Your task to perform on an android device: check google app version Image 0: 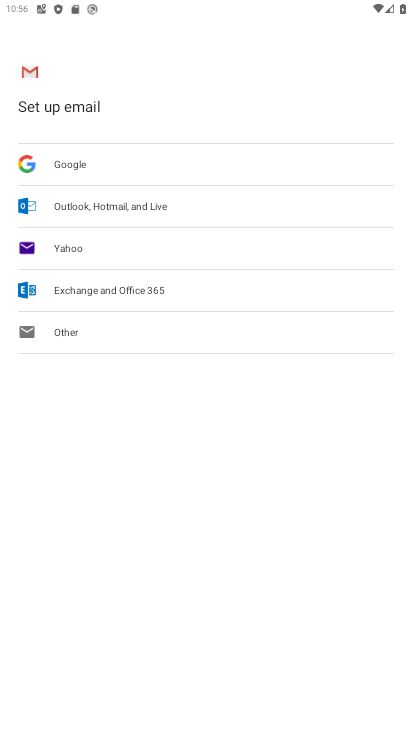
Step 0: press home button
Your task to perform on an android device: check google app version Image 1: 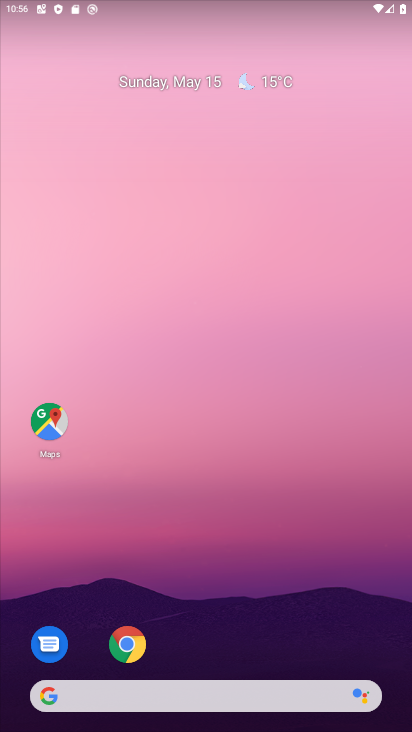
Step 1: drag from (244, 618) to (228, 28)
Your task to perform on an android device: check google app version Image 2: 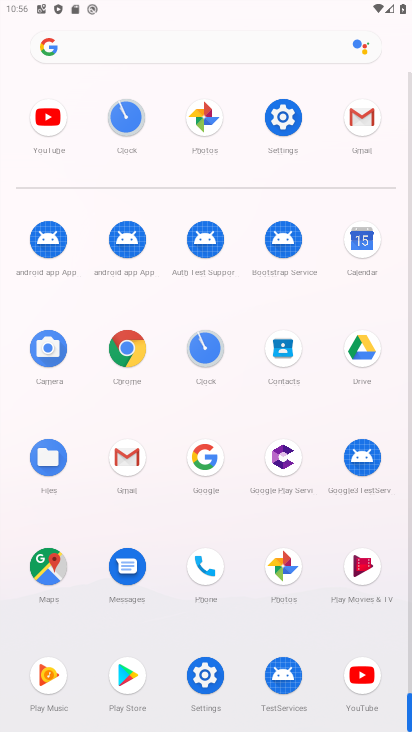
Step 2: click (210, 456)
Your task to perform on an android device: check google app version Image 3: 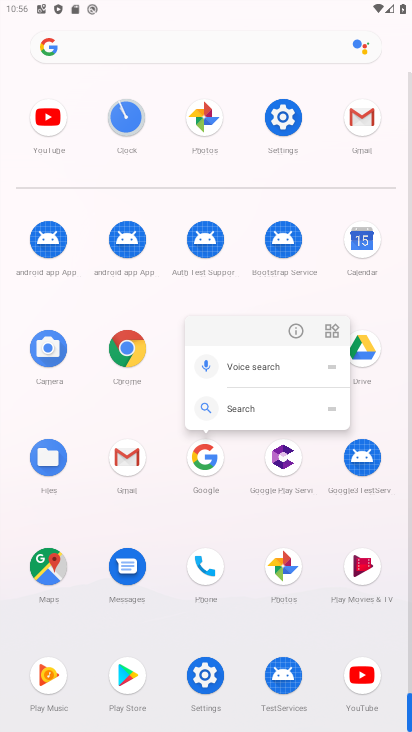
Step 3: click (294, 330)
Your task to perform on an android device: check google app version Image 4: 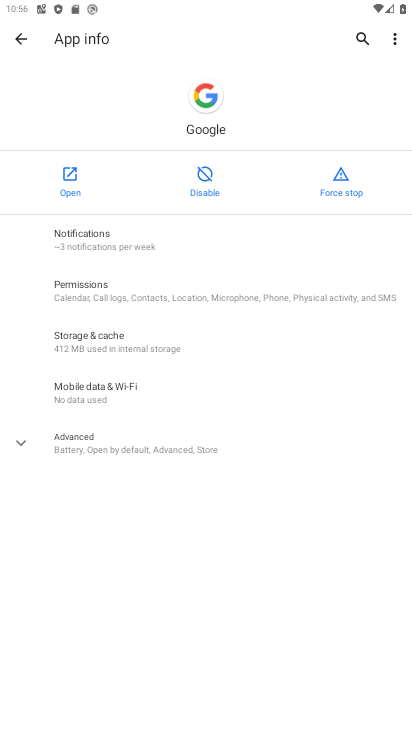
Step 4: drag from (268, 616) to (232, 421)
Your task to perform on an android device: check google app version Image 5: 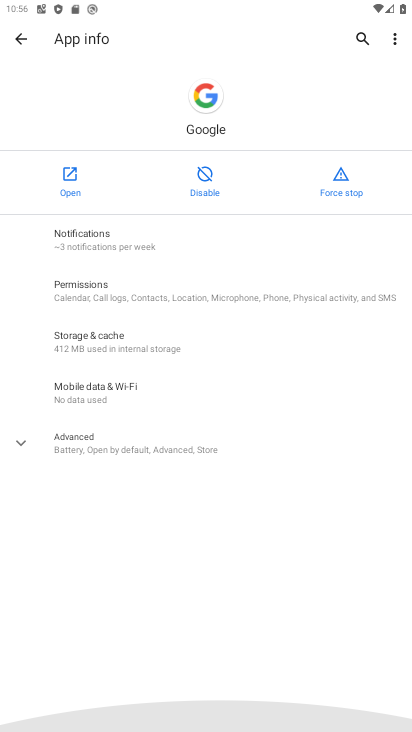
Step 5: click (126, 434)
Your task to perform on an android device: check google app version Image 6: 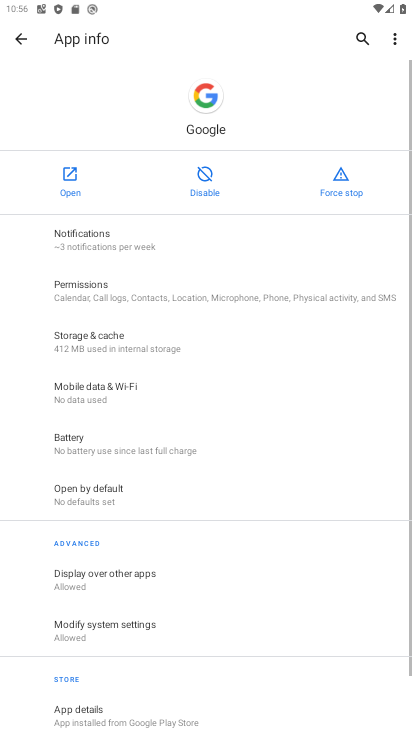
Step 6: task complete